Your task to perform on an android device: change the clock display to digital Image 0: 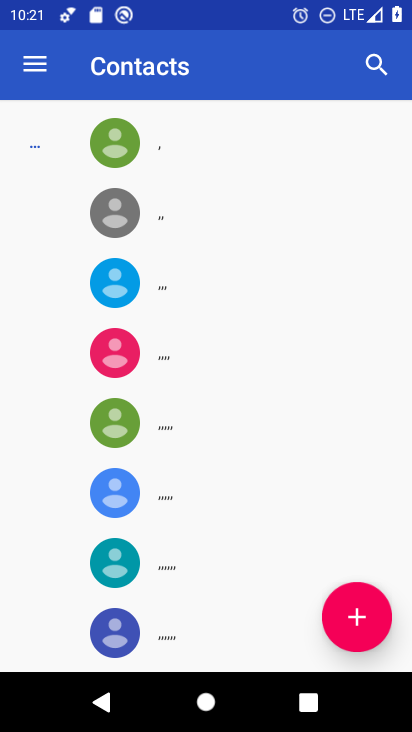
Step 0: press home button
Your task to perform on an android device: change the clock display to digital Image 1: 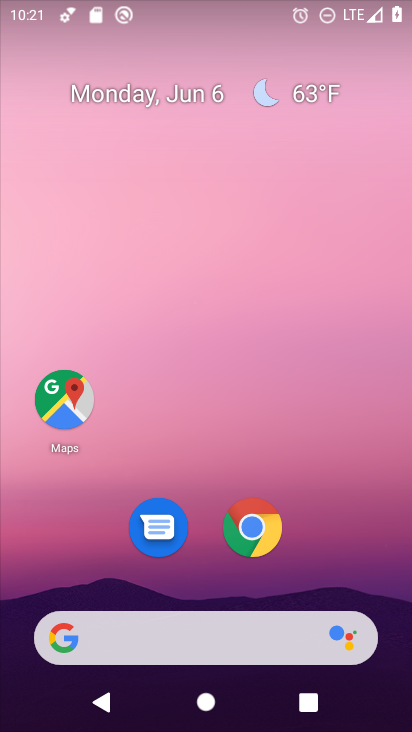
Step 1: drag from (371, 559) to (388, 102)
Your task to perform on an android device: change the clock display to digital Image 2: 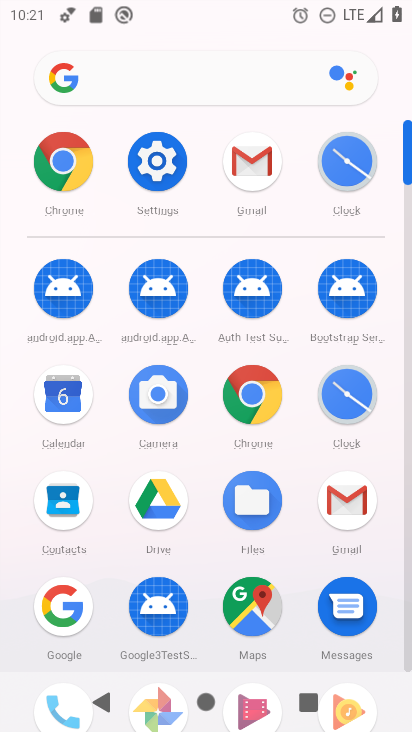
Step 2: click (355, 402)
Your task to perform on an android device: change the clock display to digital Image 3: 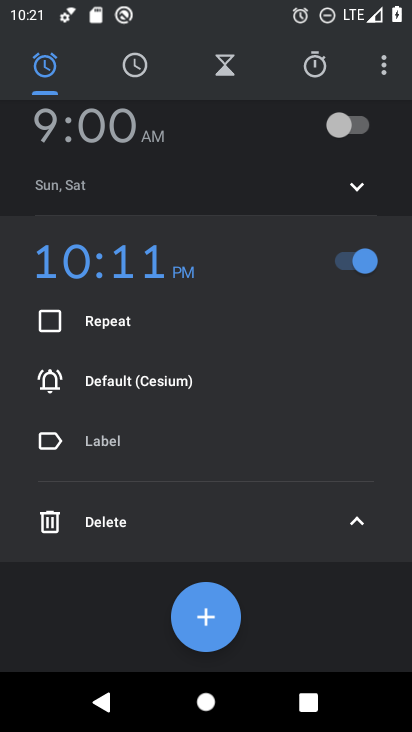
Step 3: click (382, 74)
Your task to perform on an android device: change the clock display to digital Image 4: 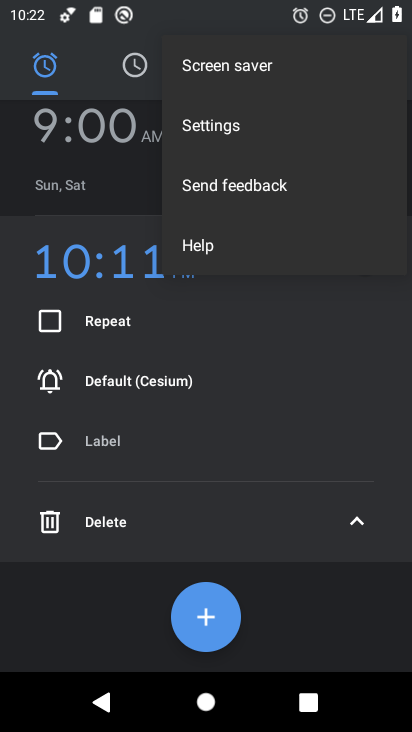
Step 4: click (219, 140)
Your task to perform on an android device: change the clock display to digital Image 5: 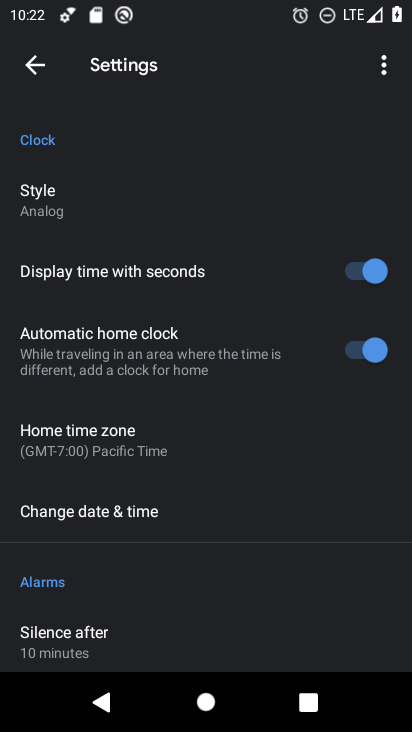
Step 5: drag from (255, 410) to (282, 236)
Your task to perform on an android device: change the clock display to digital Image 6: 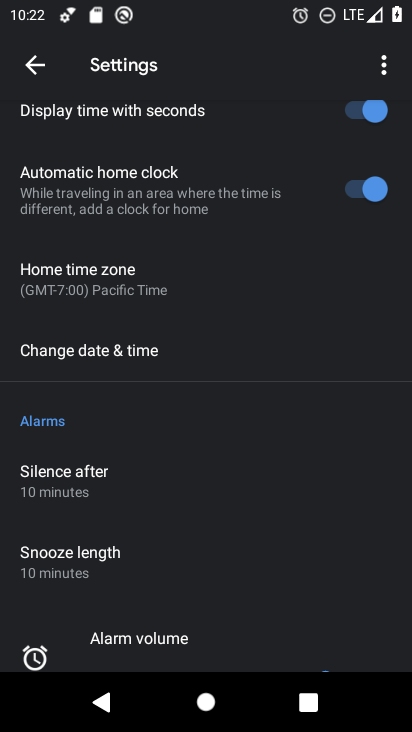
Step 6: drag from (328, 443) to (338, 275)
Your task to perform on an android device: change the clock display to digital Image 7: 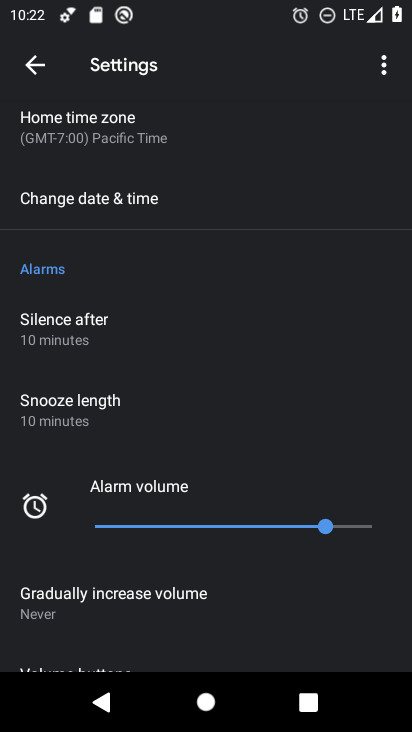
Step 7: drag from (327, 452) to (334, 256)
Your task to perform on an android device: change the clock display to digital Image 8: 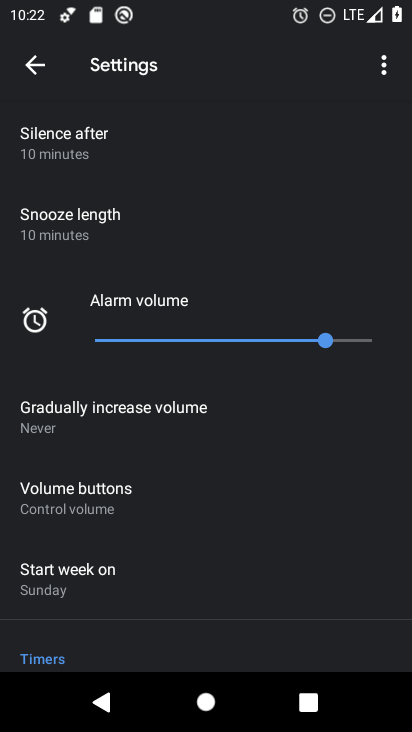
Step 8: drag from (296, 493) to (306, 267)
Your task to perform on an android device: change the clock display to digital Image 9: 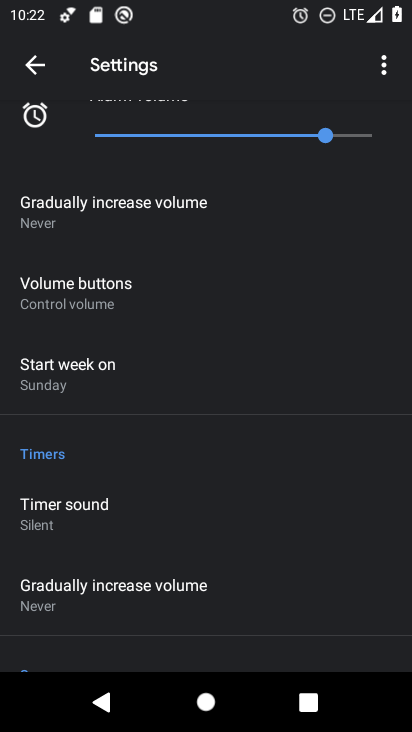
Step 9: drag from (291, 456) to (284, 283)
Your task to perform on an android device: change the clock display to digital Image 10: 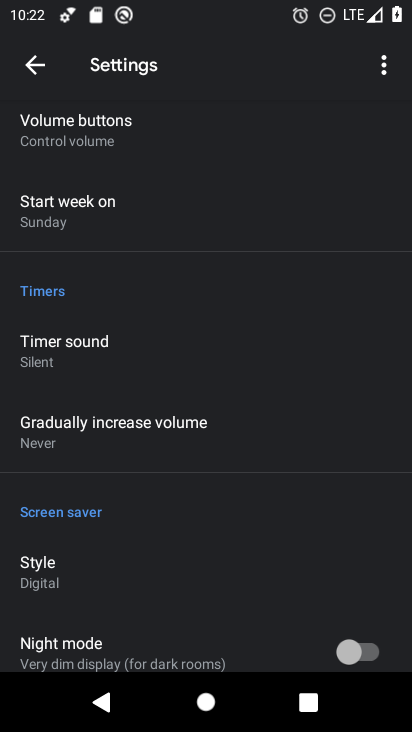
Step 10: drag from (310, 235) to (329, 474)
Your task to perform on an android device: change the clock display to digital Image 11: 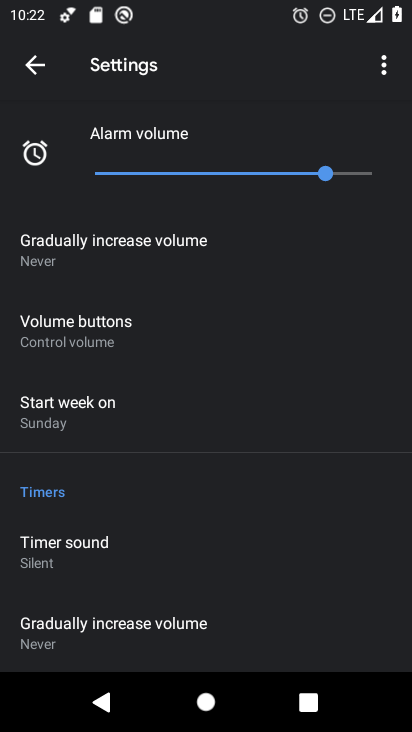
Step 11: drag from (284, 119) to (305, 389)
Your task to perform on an android device: change the clock display to digital Image 12: 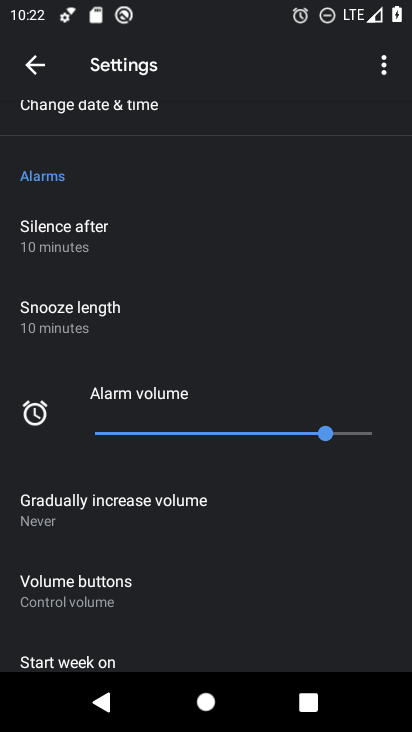
Step 12: drag from (277, 243) to (255, 481)
Your task to perform on an android device: change the clock display to digital Image 13: 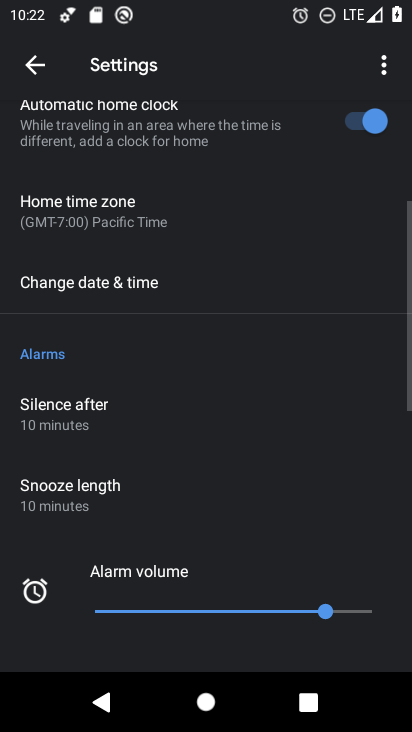
Step 13: drag from (269, 218) to (282, 420)
Your task to perform on an android device: change the clock display to digital Image 14: 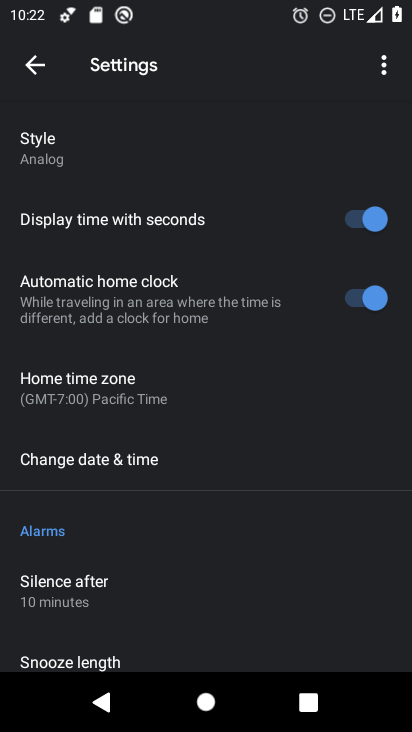
Step 14: click (81, 163)
Your task to perform on an android device: change the clock display to digital Image 15: 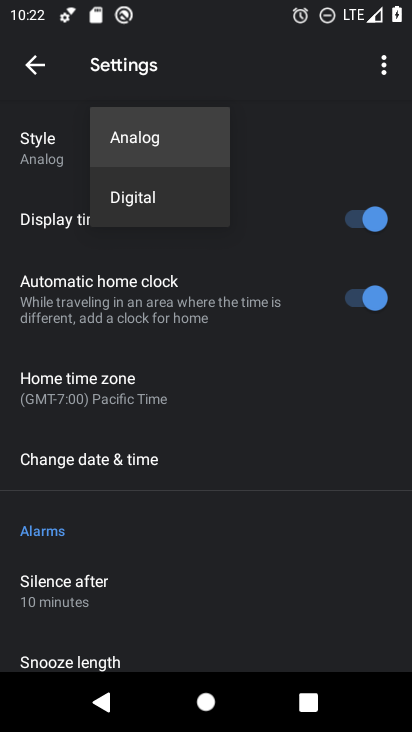
Step 15: click (156, 200)
Your task to perform on an android device: change the clock display to digital Image 16: 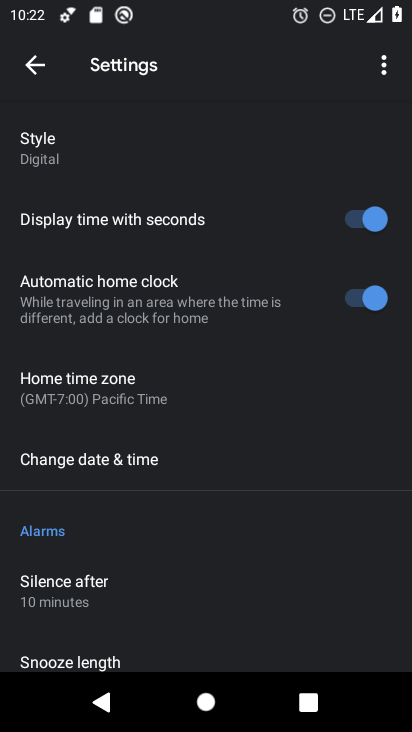
Step 16: task complete